Your task to perform on an android device: empty trash in google photos Image 0: 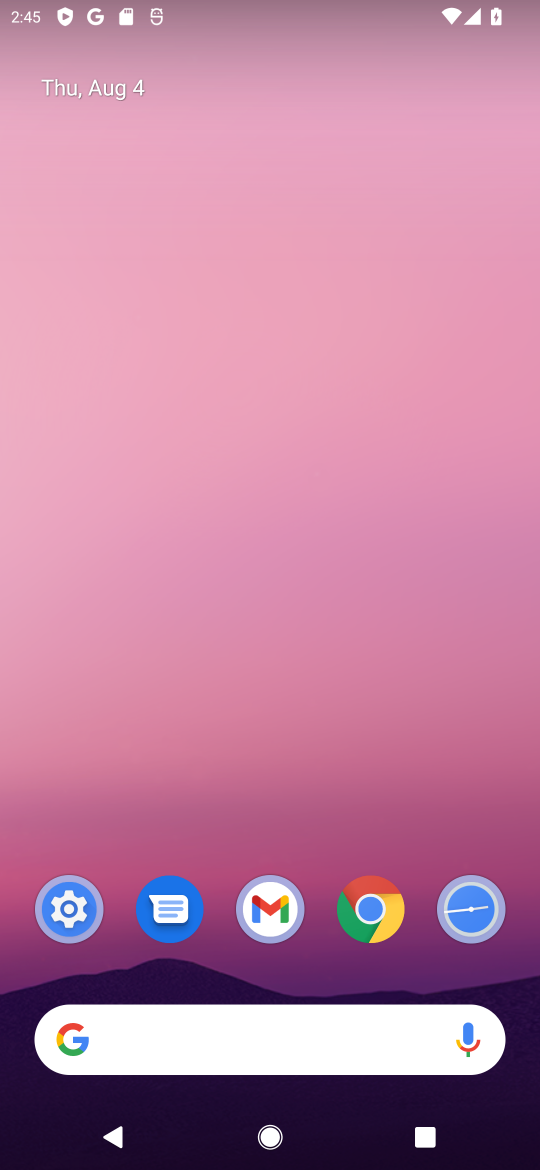
Step 0: drag from (257, 1035) to (387, 68)
Your task to perform on an android device: empty trash in google photos Image 1: 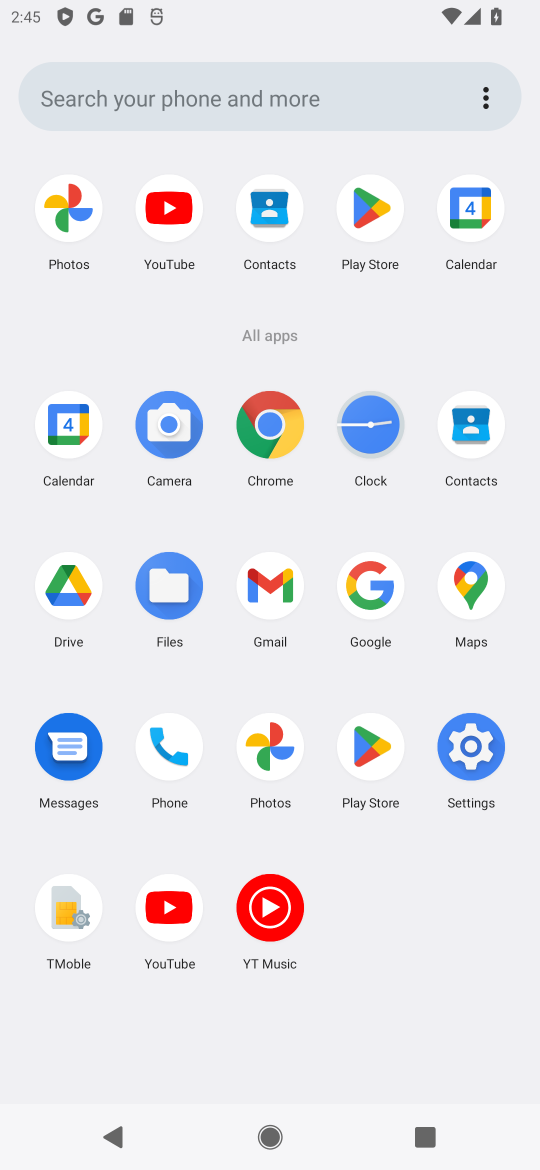
Step 1: click (72, 190)
Your task to perform on an android device: empty trash in google photos Image 2: 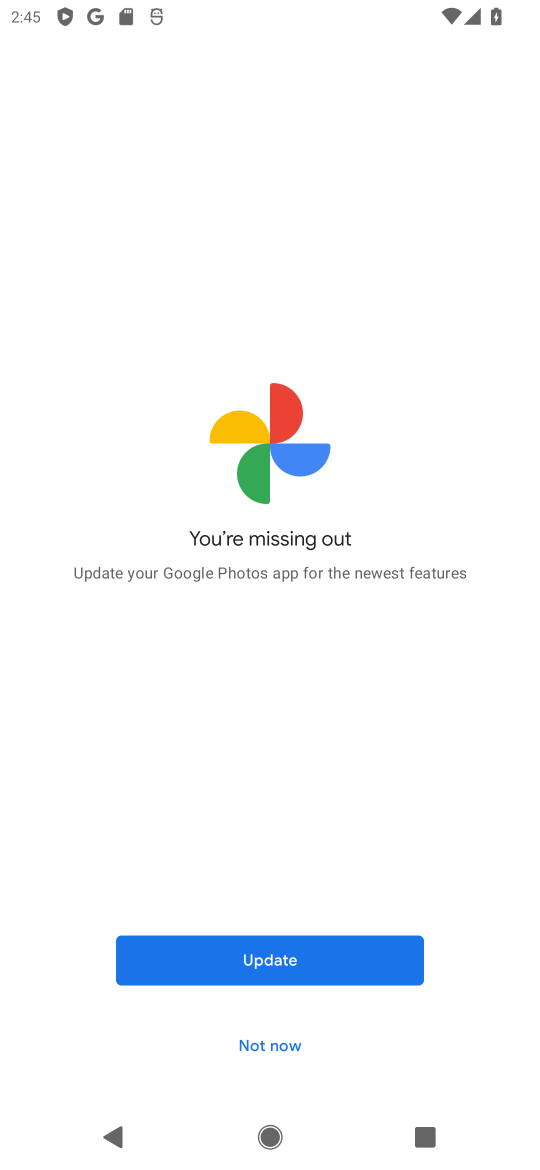
Step 2: click (309, 961)
Your task to perform on an android device: empty trash in google photos Image 3: 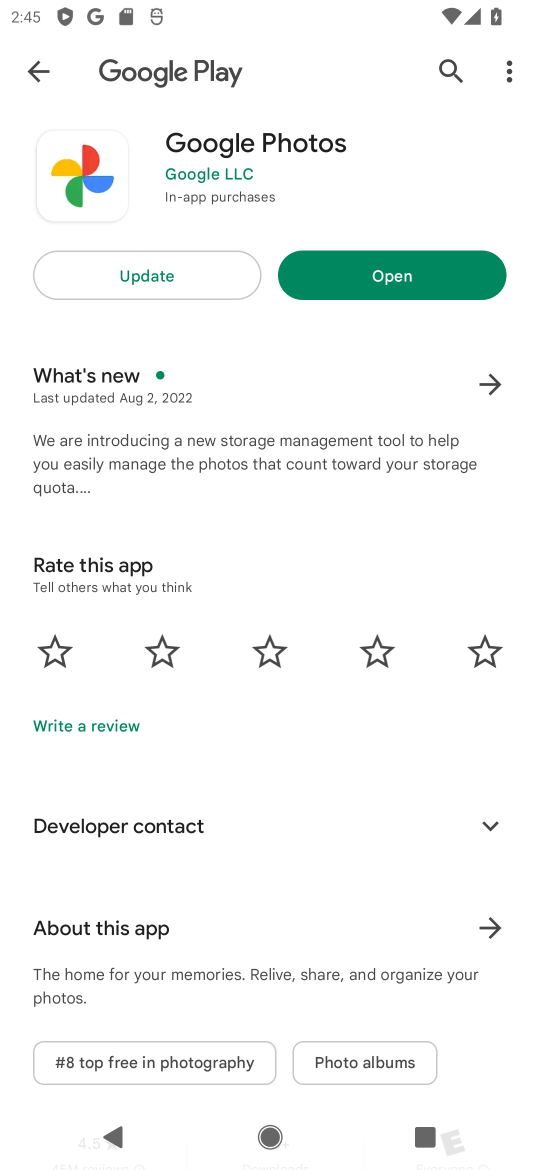
Step 3: click (141, 274)
Your task to perform on an android device: empty trash in google photos Image 4: 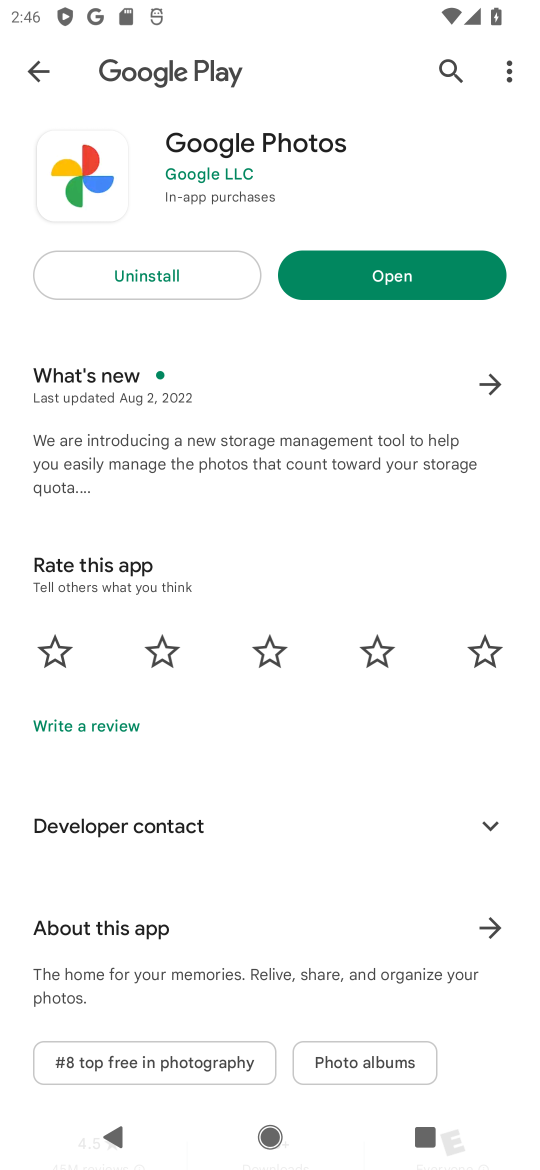
Step 4: click (392, 270)
Your task to perform on an android device: empty trash in google photos Image 5: 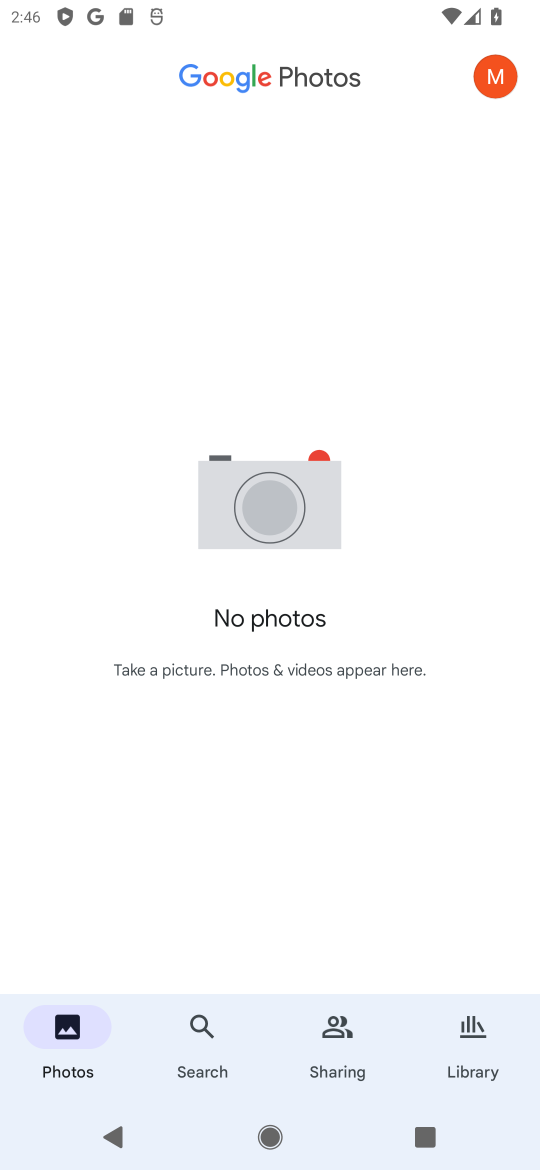
Step 5: click (504, 80)
Your task to perform on an android device: empty trash in google photos Image 6: 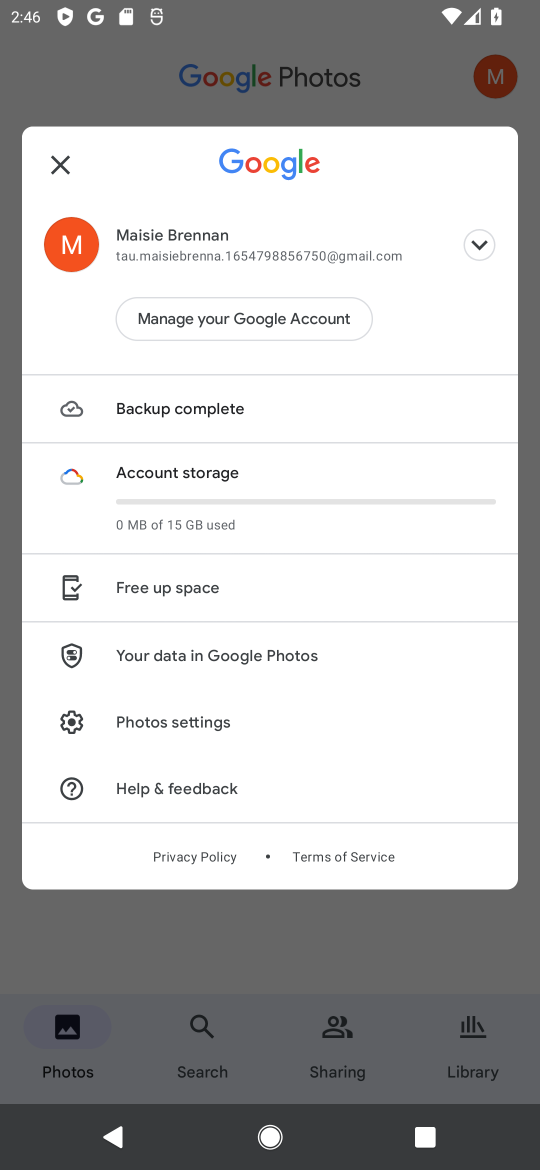
Step 6: click (218, 724)
Your task to perform on an android device: empty trash in google photos Image 7: 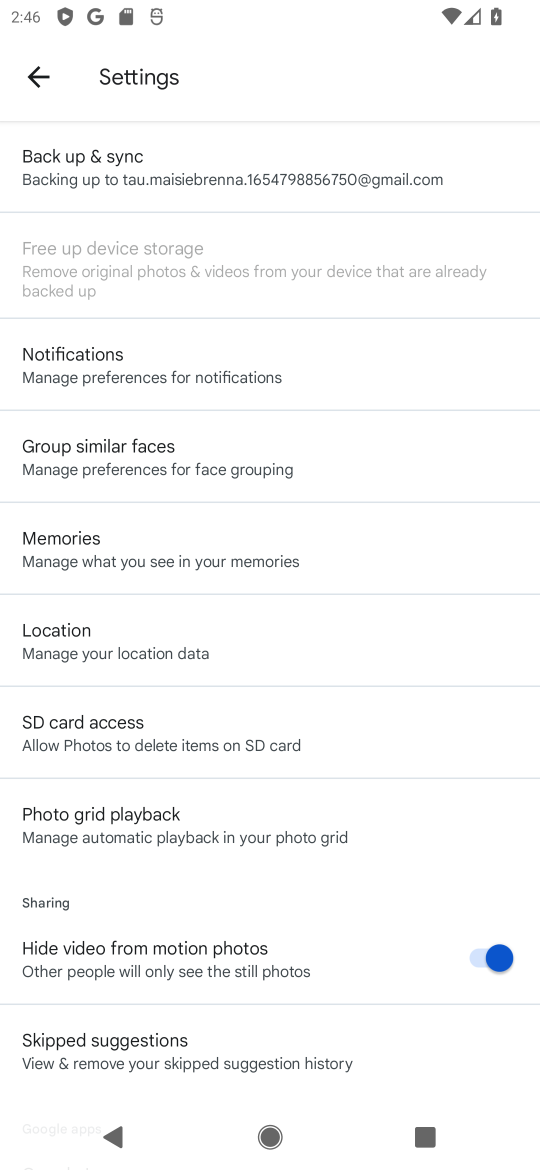
Step 7: task complete